Your task to perform on an android device: check data usage Image 0: 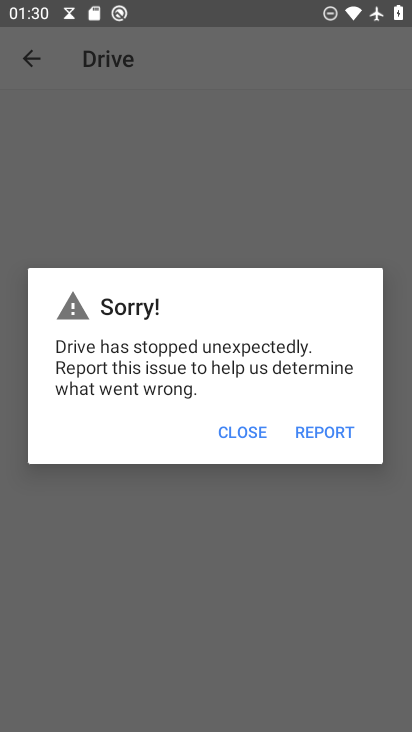
Step 0: press home button
Your task to perform on an android device: check data usage Image 1: 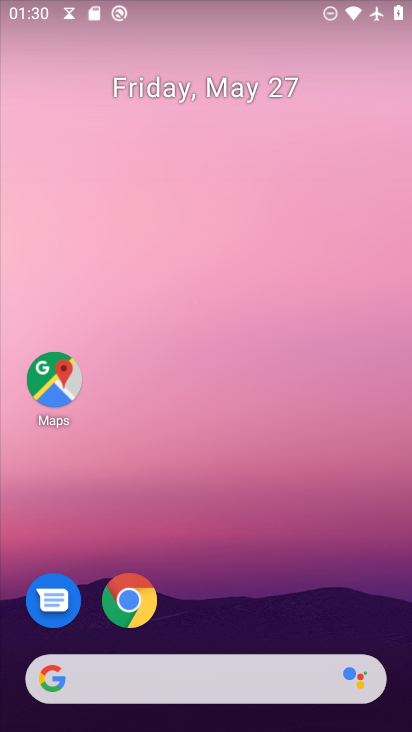
Step 1: drag from (294, 568) to (340, 114)
Your task to perform on an android device: check data usage Image 2: 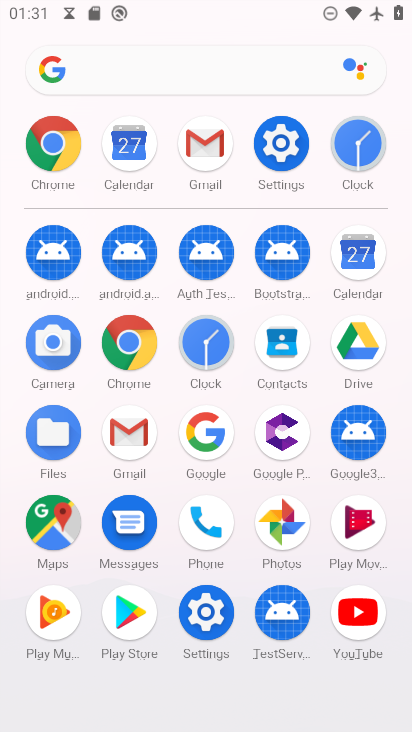
Step 2: click (285, 144)
Your task to perform on an android device: check data usage Image 3: 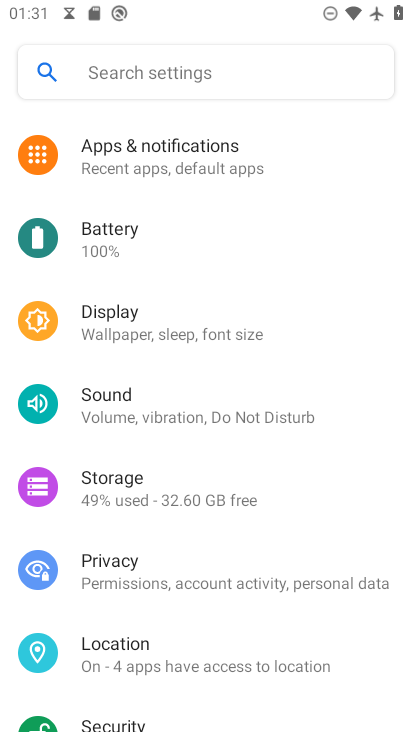
Step 3: drag from (196, 171) to (107, 570)
Your task to perform on an android device: check data usage Image 4: 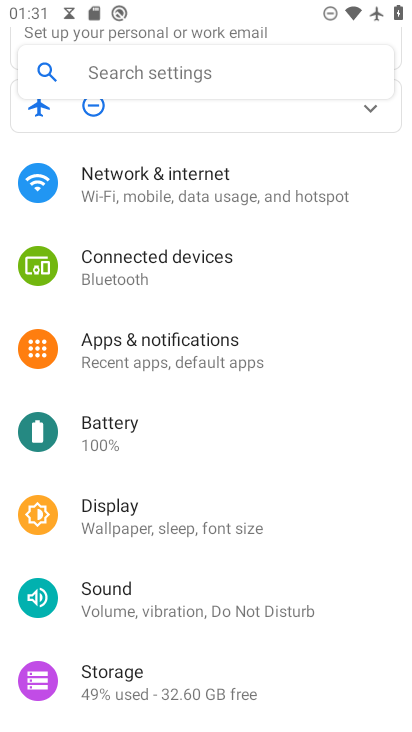
Step 4: click (226, 197)
Your task to perform on an android device: check data usage Image 5: 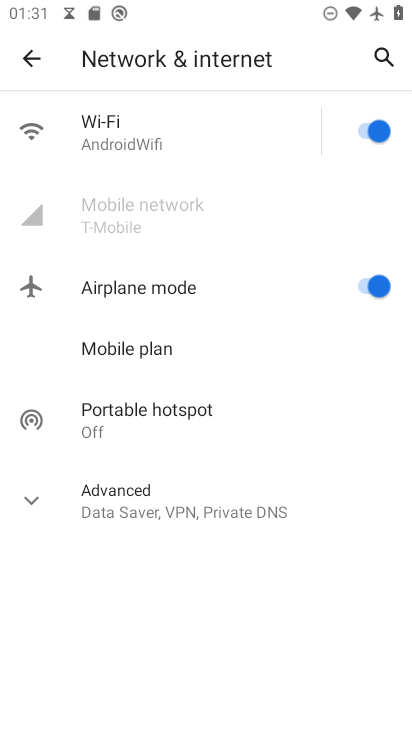
Step 5: click (383, 304)
Your task to perform on an android device: check data usage Image 6: 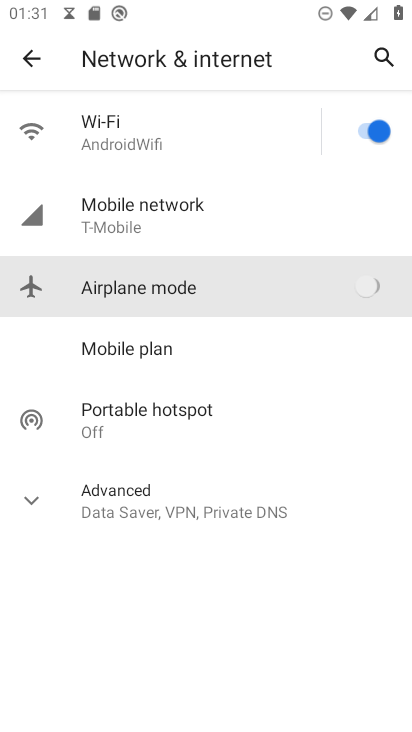
Step 6: click (383, 304)
Your task to perform on an android device: check data usage Image 7: 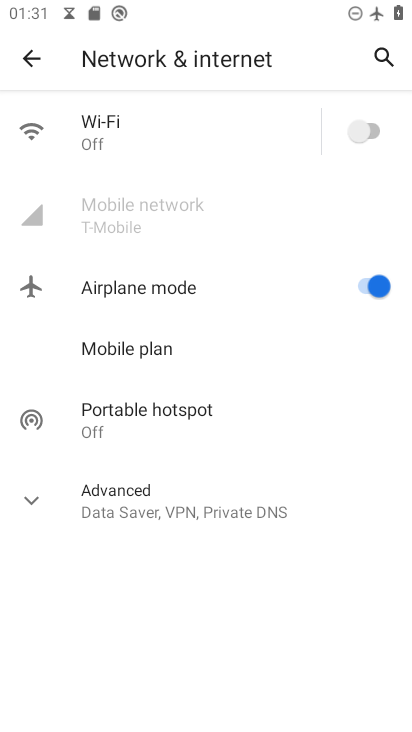
Step 7: click (157, 180)
Your task to perform on an android device: check data usage Image 8: 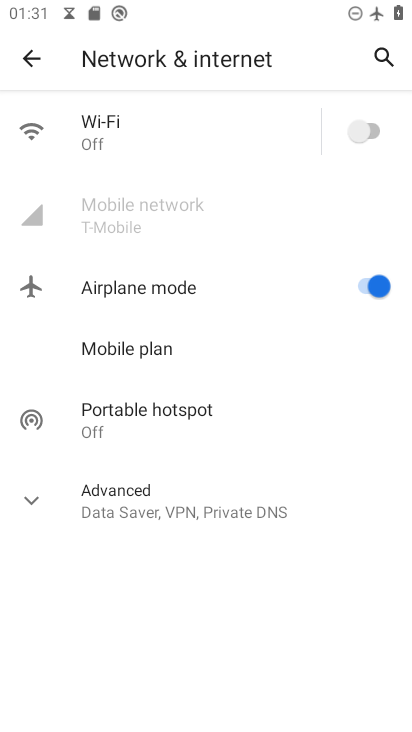
Step 8: click (378, 292)
Your task to perform on an android device: check data usage Image 9: 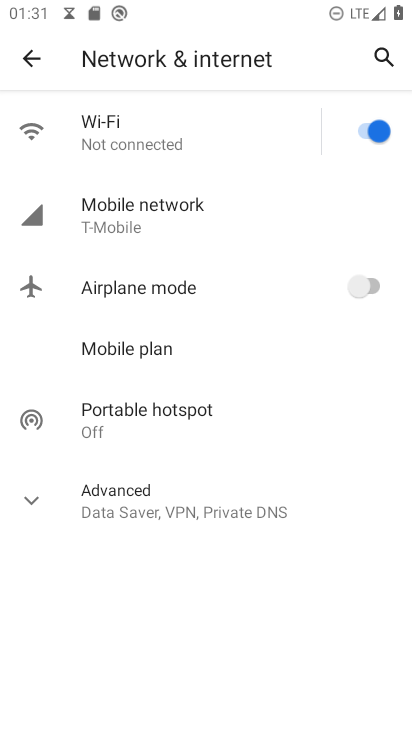
Step 9: click (288, 232)
Your task to perform on an android device: check data usage Image 10: 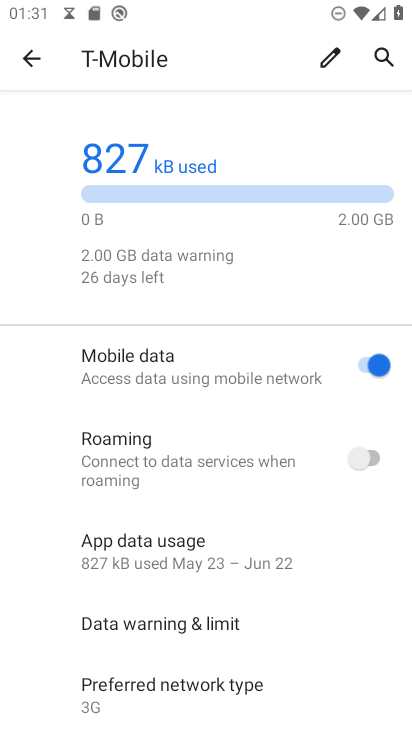
Step 10: task complete